Your task to perform on an android device: Open the stopwatch Image 0: 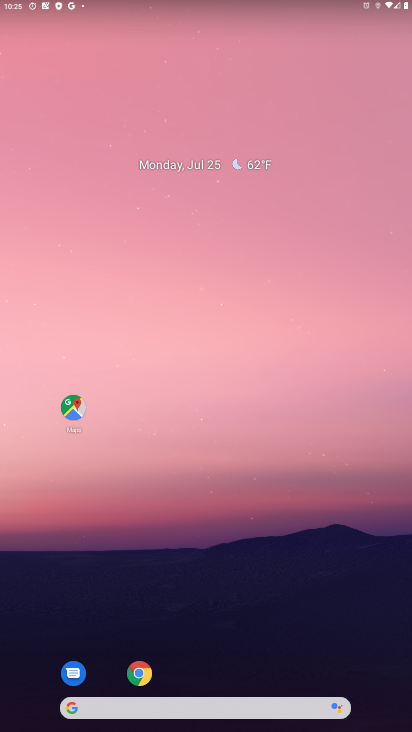
Step 0: drag from (193, 647) to (212, 211)
Your task to perform on an android device: Open the stopwatch Image 1: 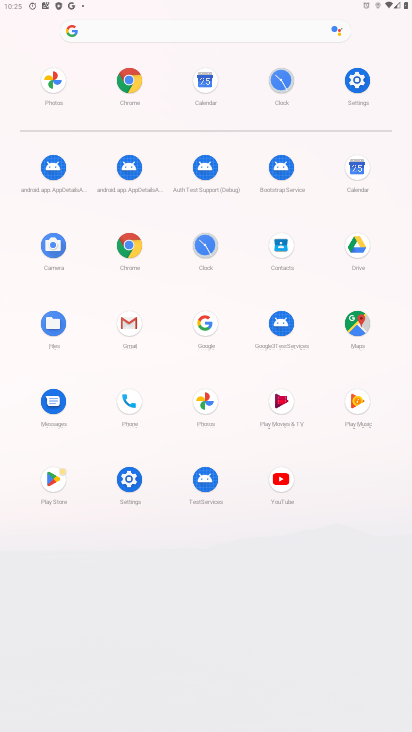
Step 1: click (206, 236)
Your task to perform on an android device: Open the stopwatch Image 2: 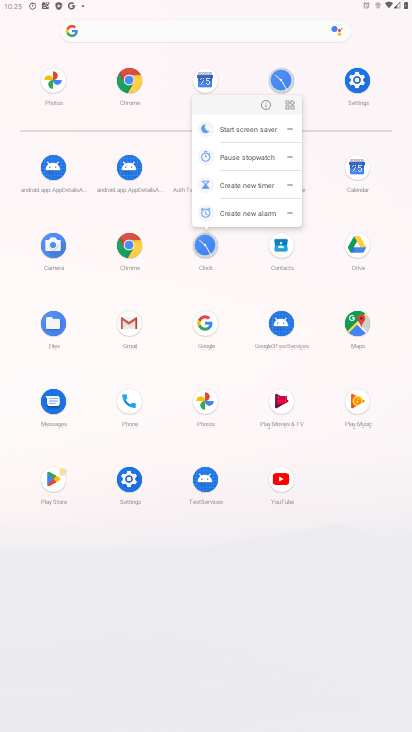
Step 2: click (262, 101)
Your task to perform on an android device: Open the stopwatch Image 3: 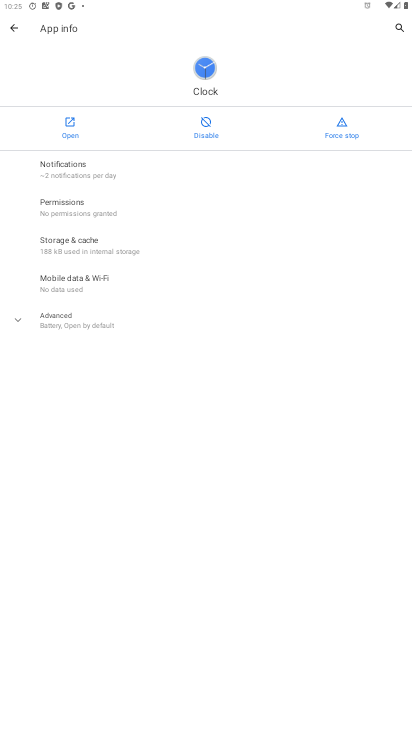
Step 3: click (78, 132)
Your task to perform on an android device: Open the stopwatch Image 4: 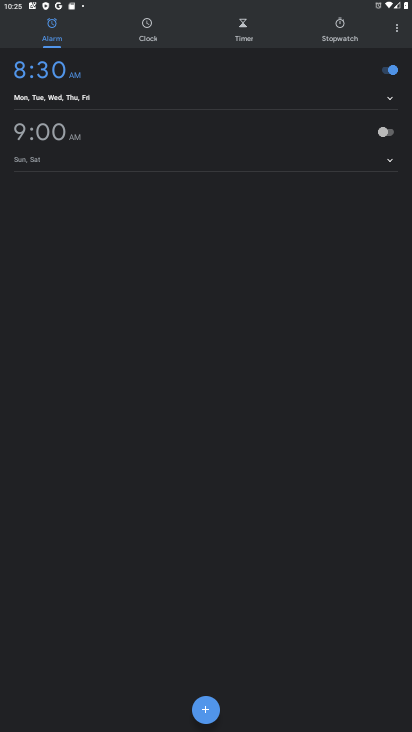
Step 4: click (341, 35)
Your task to perform on an android device: Open the stopwatch Image 5: 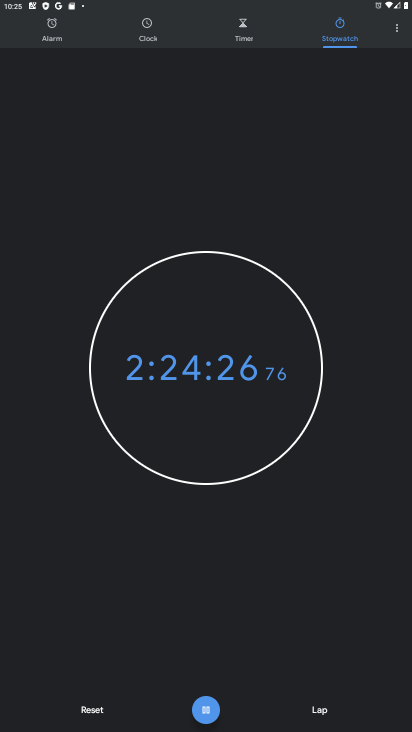
Step 5: task complete